Your task to perform on an android device: clear all cookies in the chrome app Image 0: 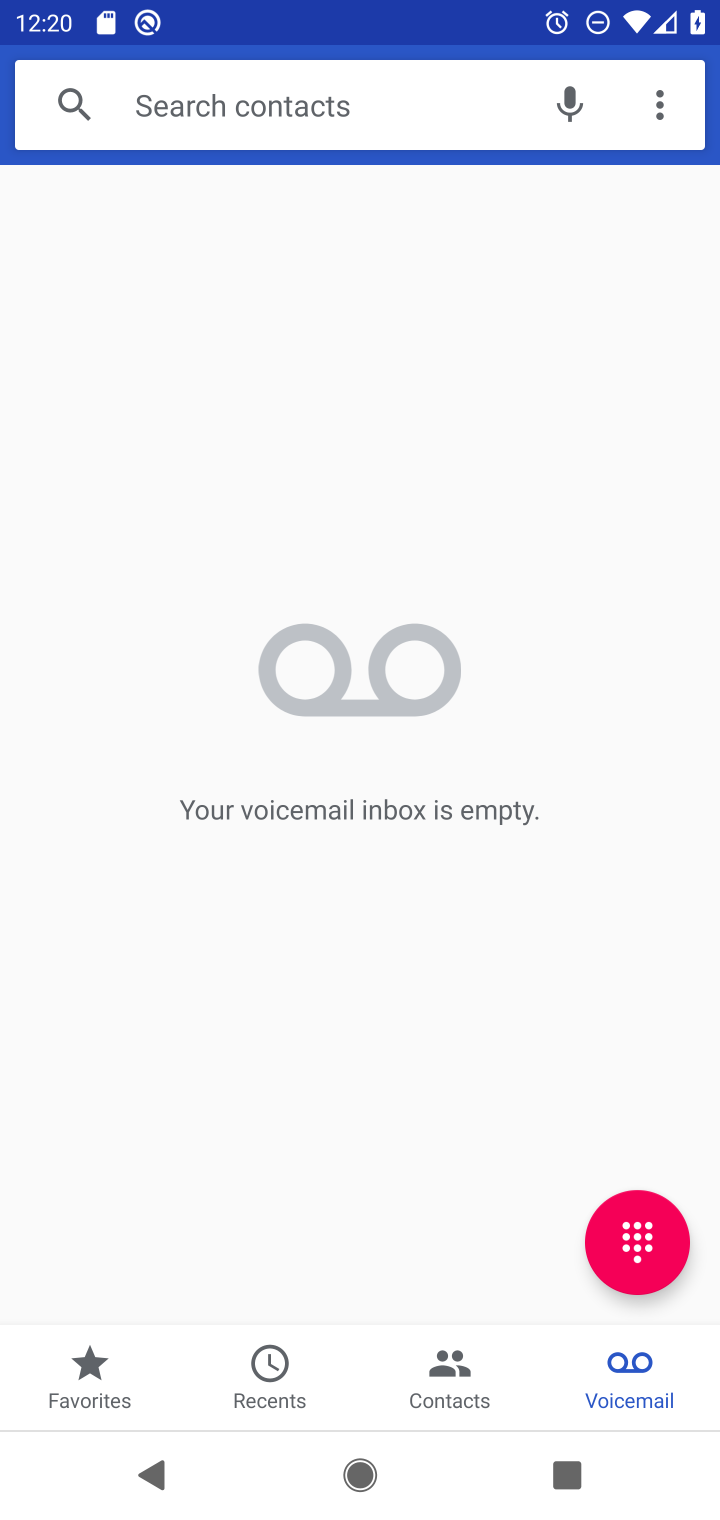
Step 0: press home button
Your task to perform on an android device: clear all cookies in the chrome app Image 1: 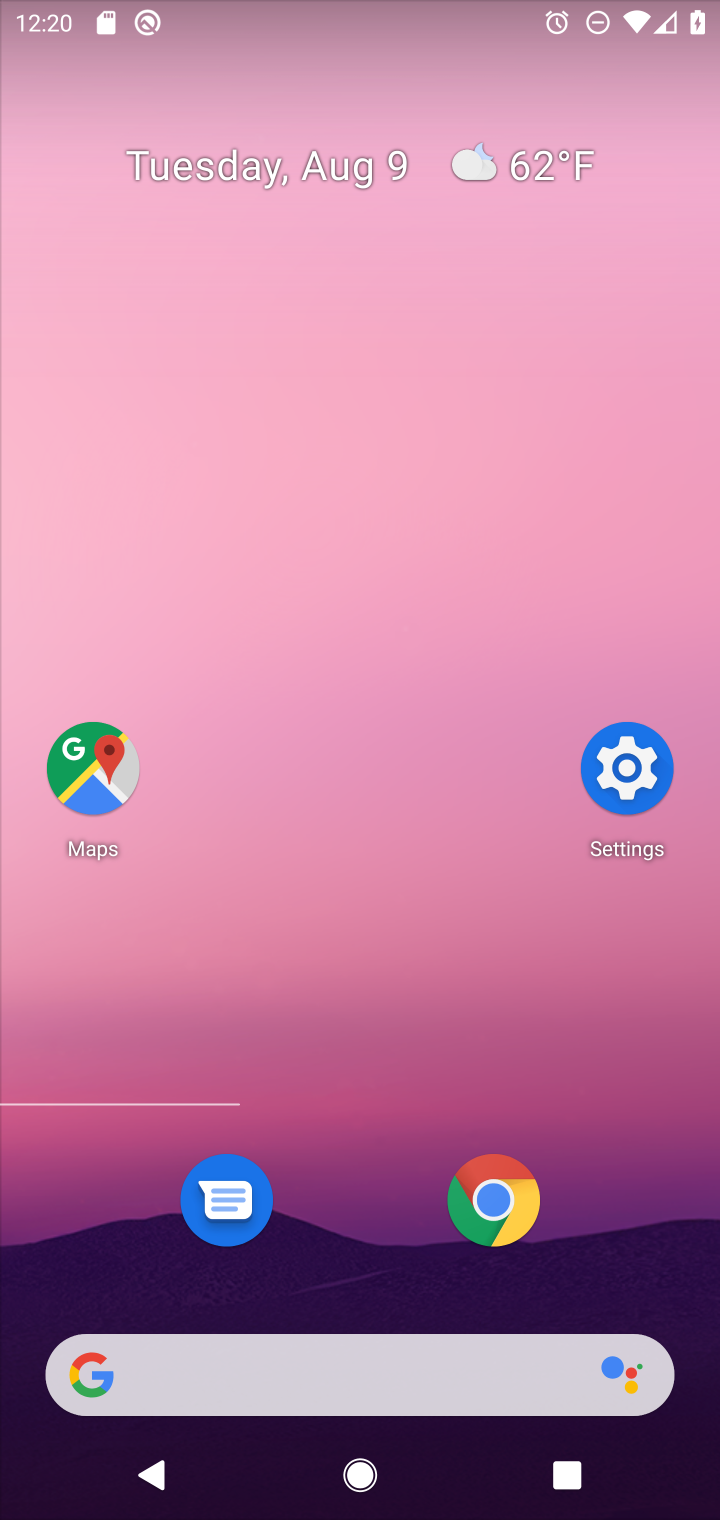
Step 1: click (493, 1204)
Your task to perform on an android device: clear all cookies in the chrome app Image 2: 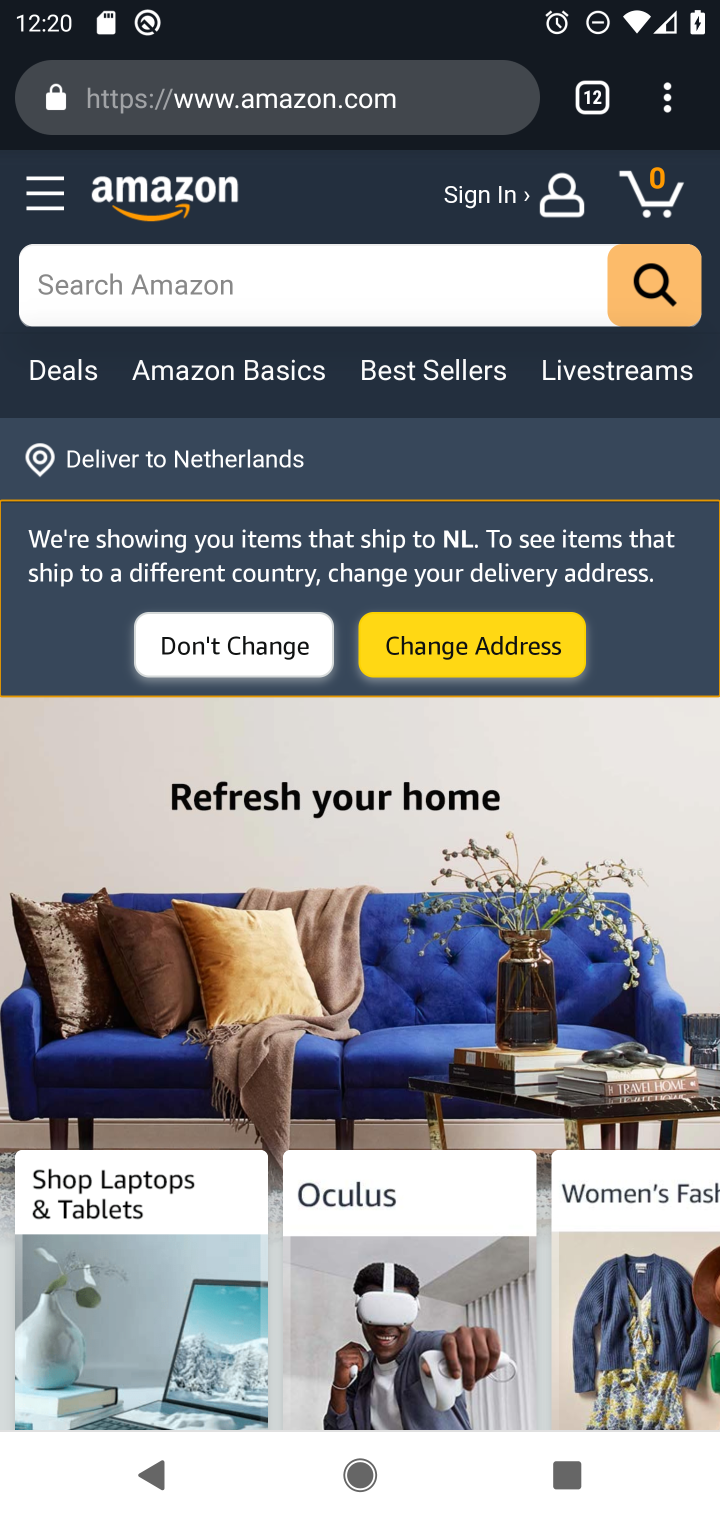
Step 2: drag from (667, 105) to (450, 1288)
Your task to perform on an android device: clear all cookies in the chrome app Image 3: 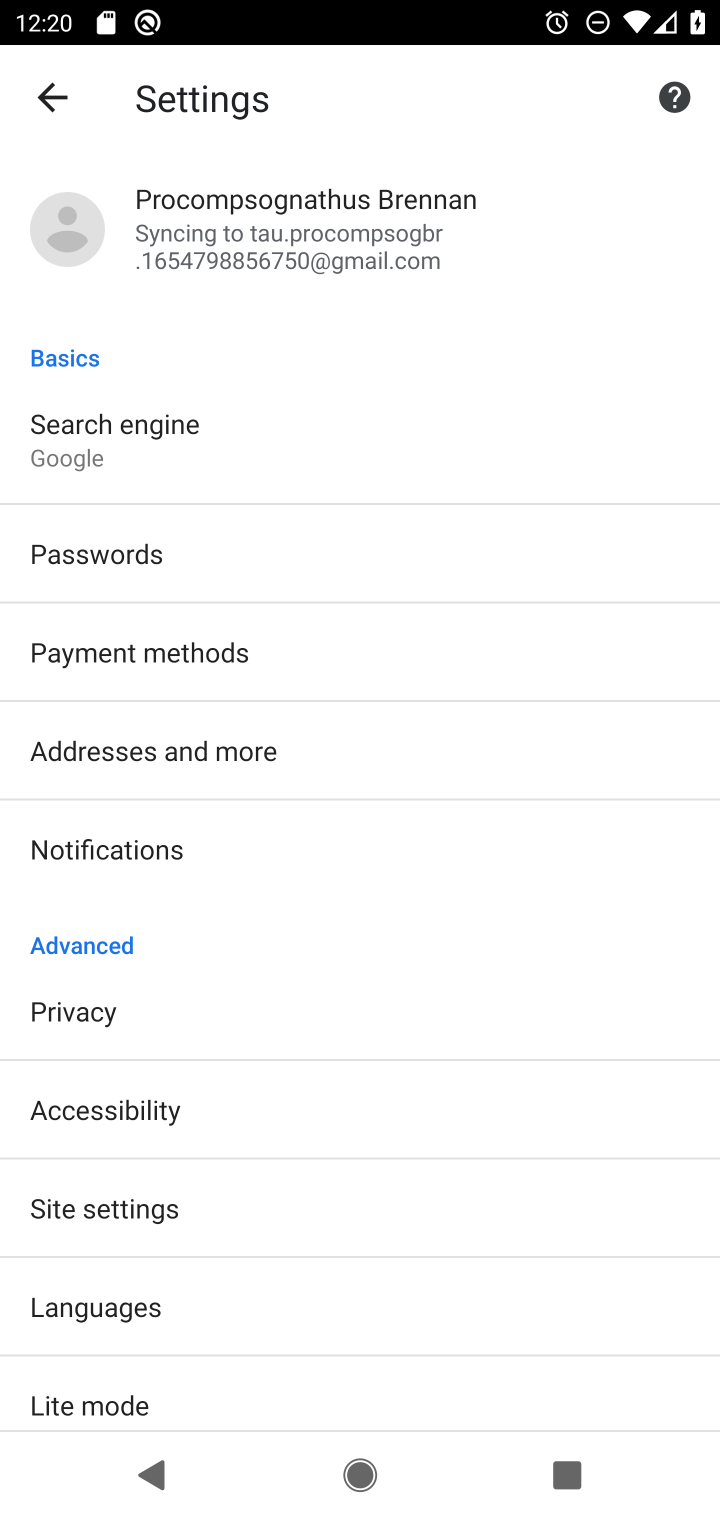
Step 3: drag from (324, 1415) to (584, 662)
Your task to perform on an android device: clear all cookies in the chrome app Image 4: 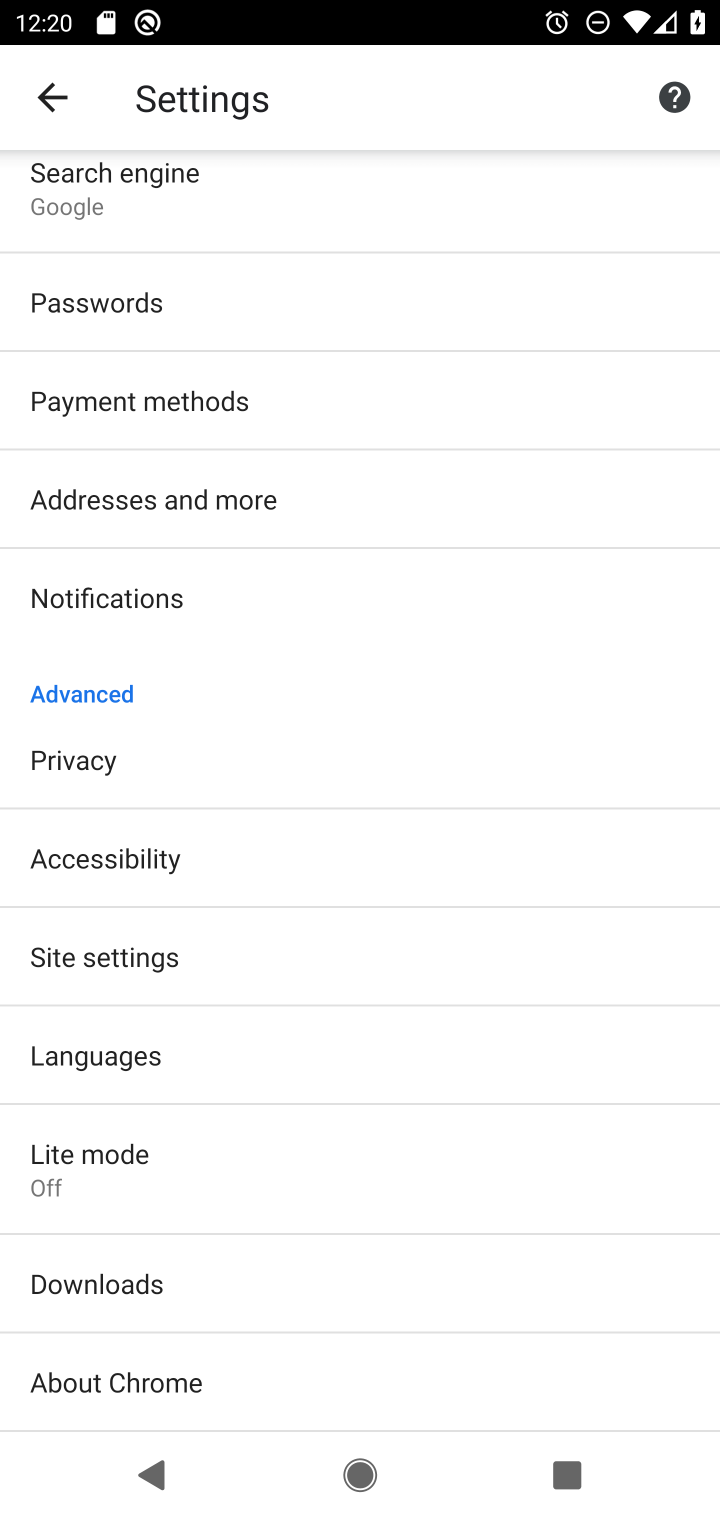
Step 4: click (101, 756)
Your task to perform on an android device: clear all cookies in the chrome app Image 5: 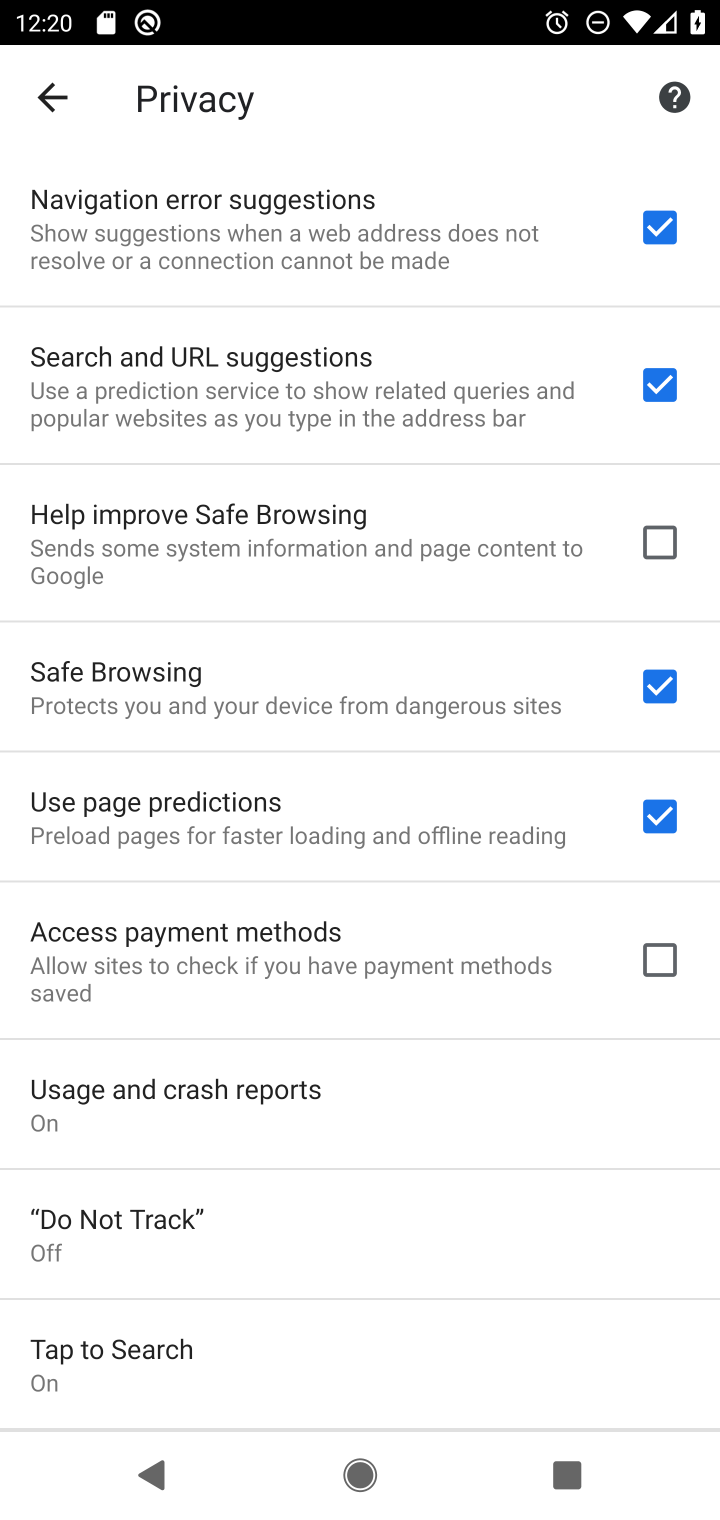
Step 5: drag from (488, 1336) to (642, 205)
Your task to perform on an android device: clear all cookies in the chrome app Image 6: 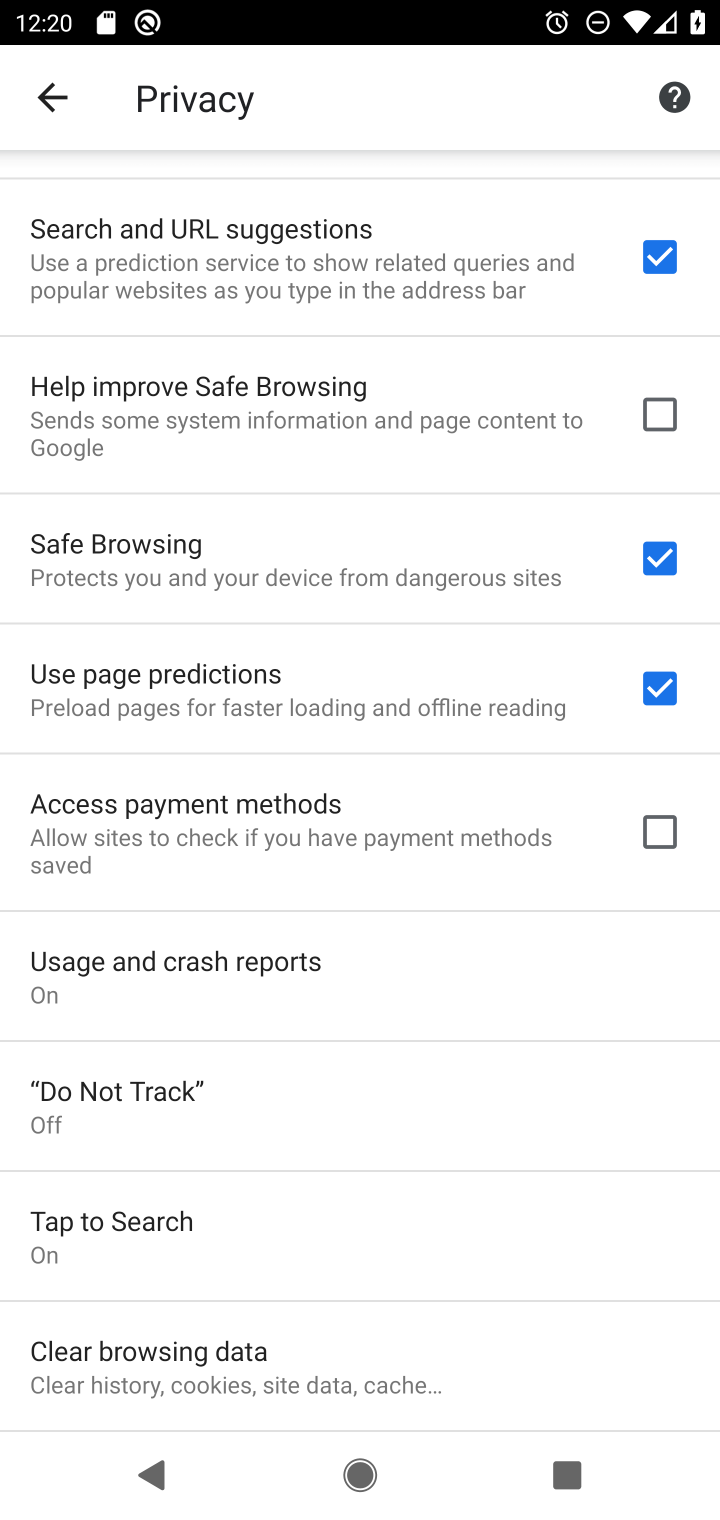
Step 6: click (320, 1381)
Your task to perform on an android device: clear all cookies in the chrome app Image 7: 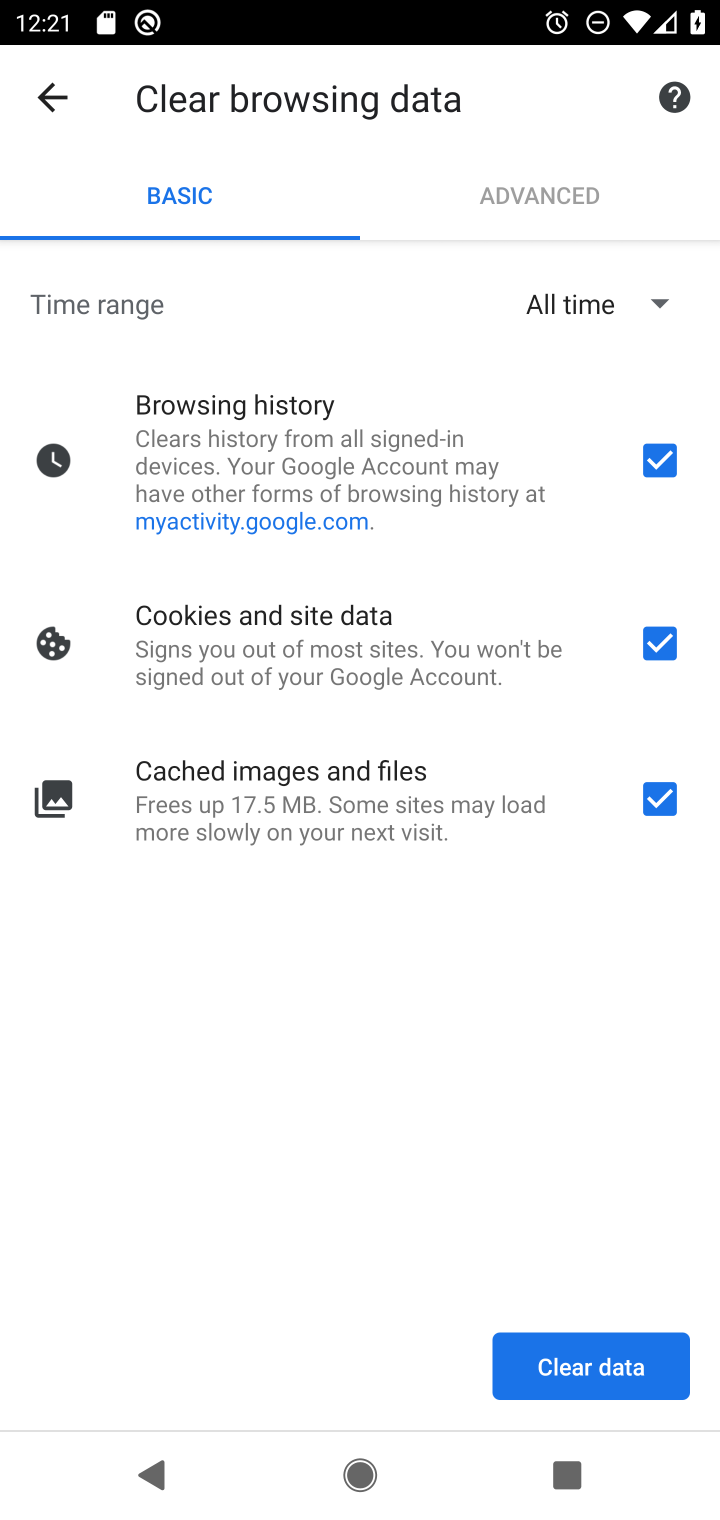
Step 7: click (659, 462)
Your task to perform on an android device: clear all cookies in the chrome app Image 8: 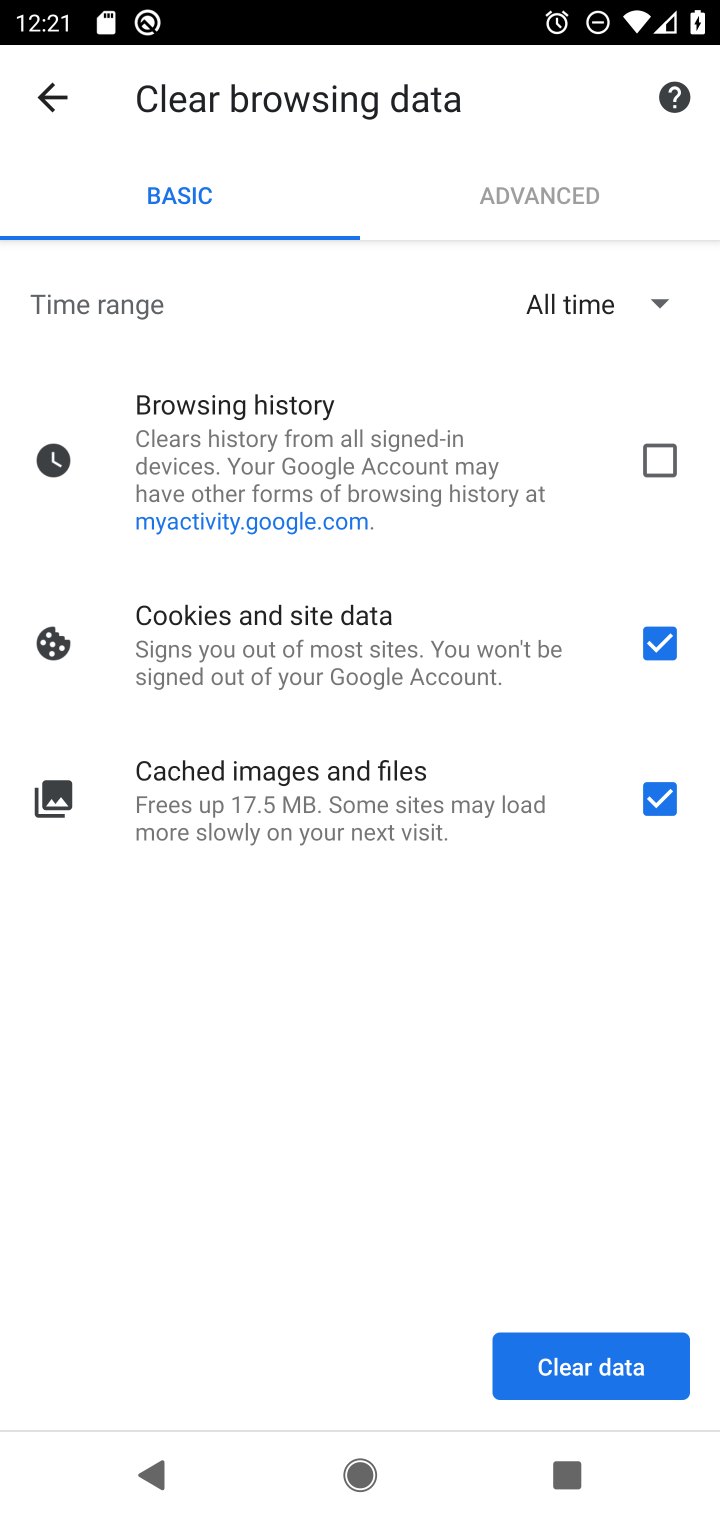
Step 8: click (653, 799)
Your task to perform on an android device: clear all cookies in the chrome app Image 9: 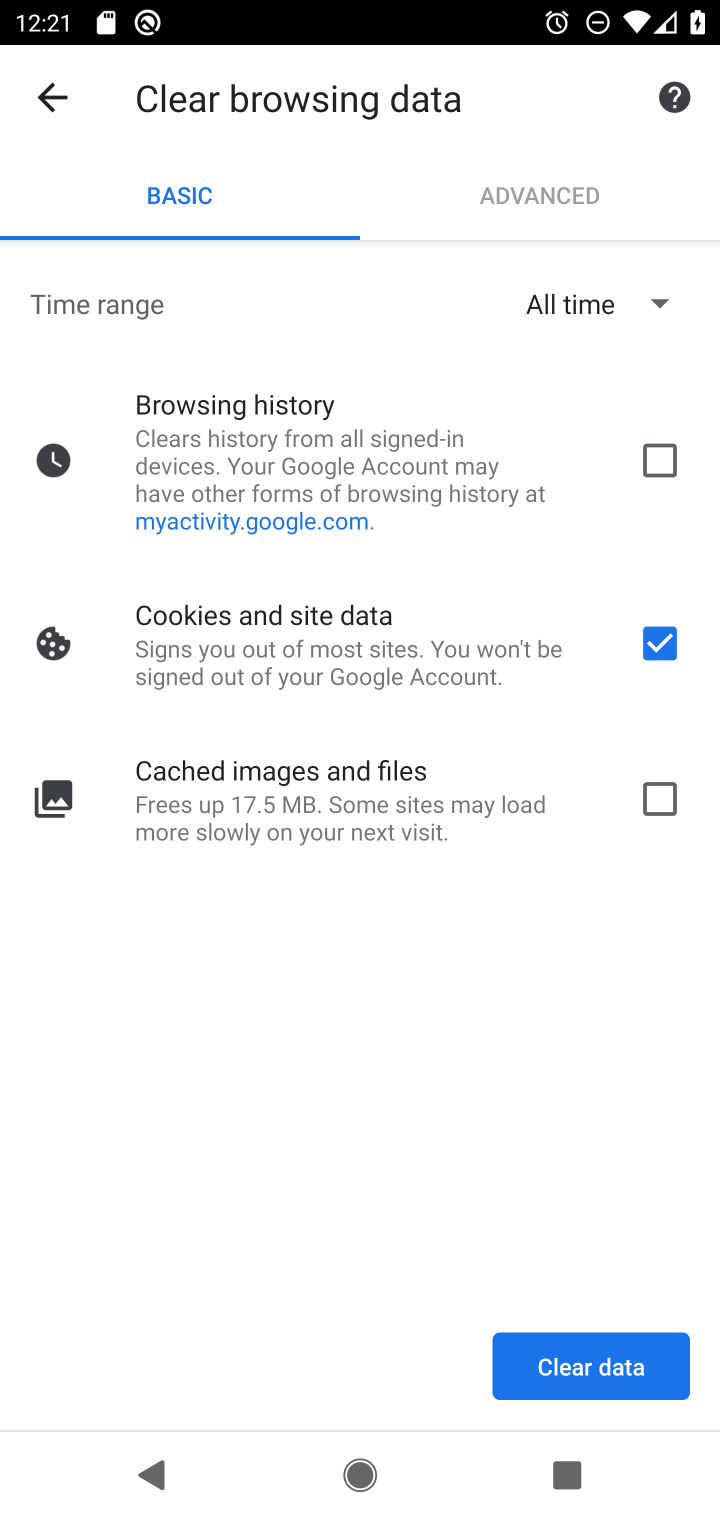
Step 9: click (640, 1364)
Your task to perform on an android device: clear all cookies in the chrome app Image 10: 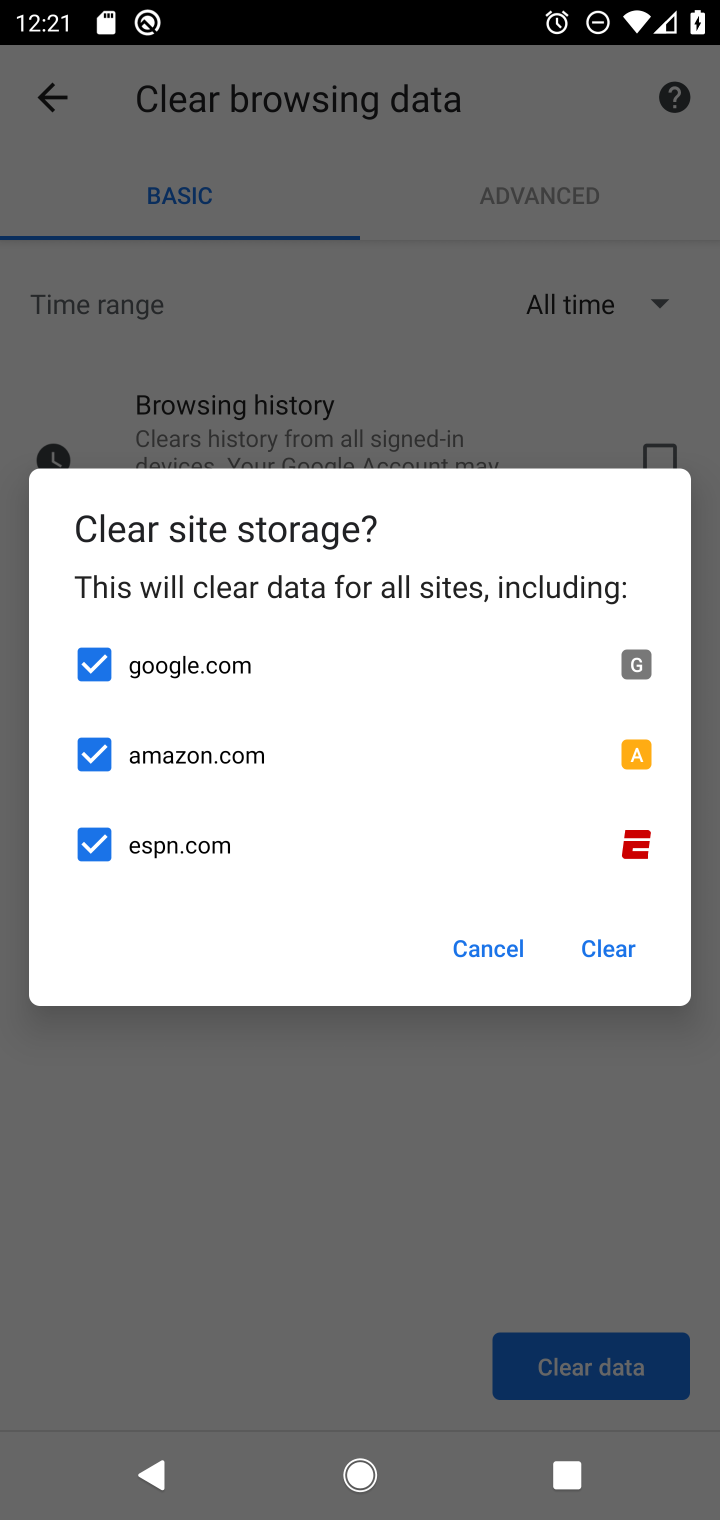
Step 10: click (599, 955)
Your task to perform on an android device: clear all cookies in the chrome app Image 11: 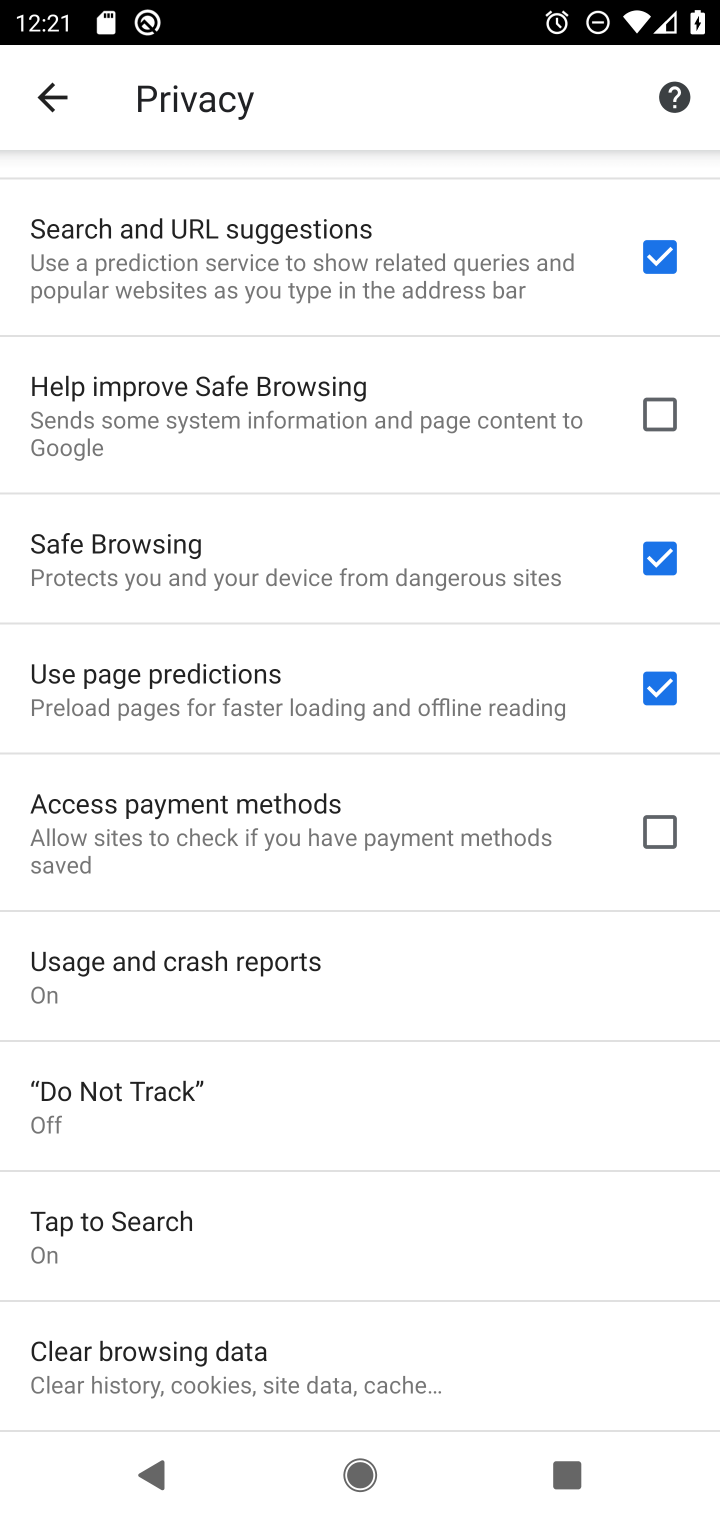
Step 11: task complete